Your task to perform on an android device: Add sony triple a to the cart on amazon.com Image 0: 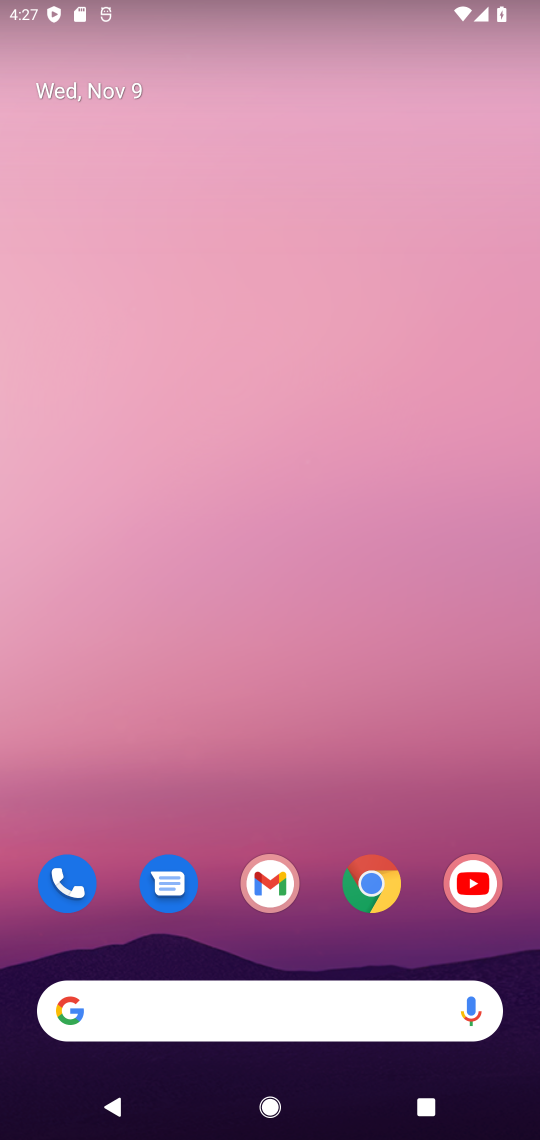
Step 0: click (377, 902)
Your task to perform on an android device: Add sony triple a to the cart on amazon.com Image 1: 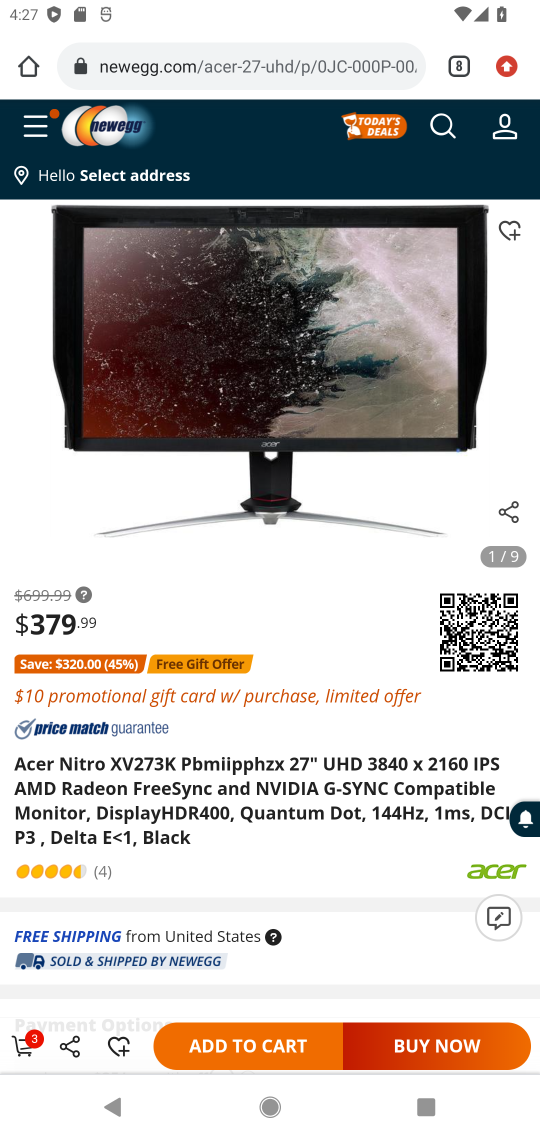
Step 1: click (458, 58)
Your task to perform on an android device: Add sony triple a to the cart on amazon.com Image 2: 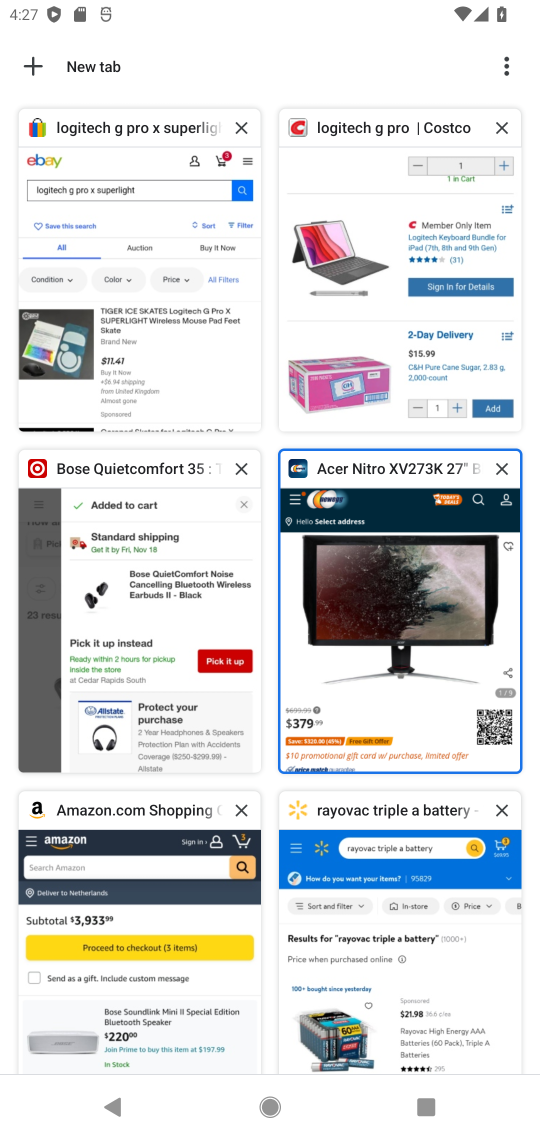
Step 2: click (135, 860)
Your task to perform on an android device: Add sony triple a to the cart on amazon.com Image 3: 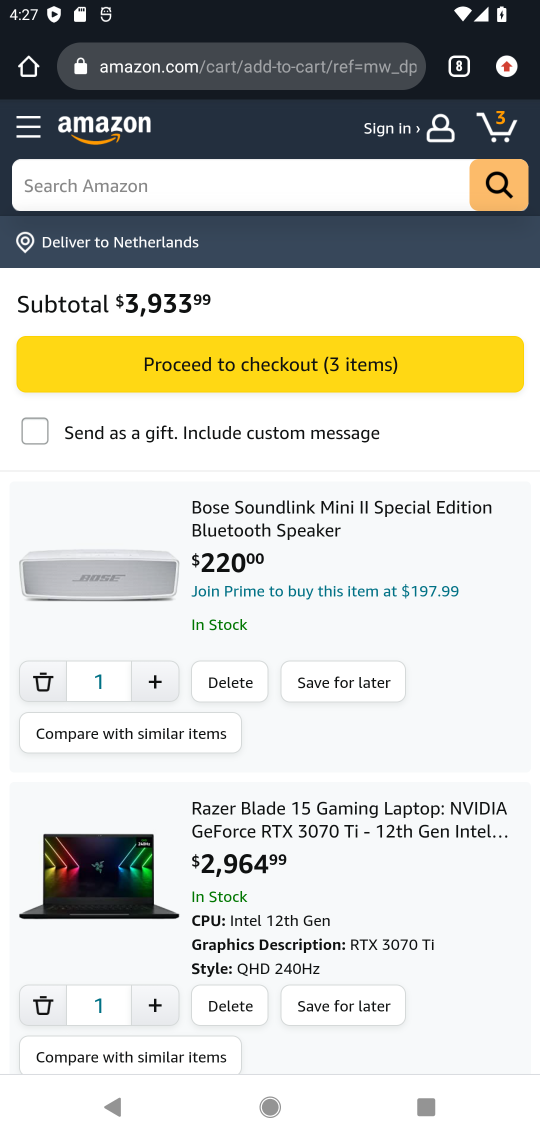
Step 3: click (163, 179)
Your task to perform on an android device: Add sony triple a to the cart on amazon.com Image 4: 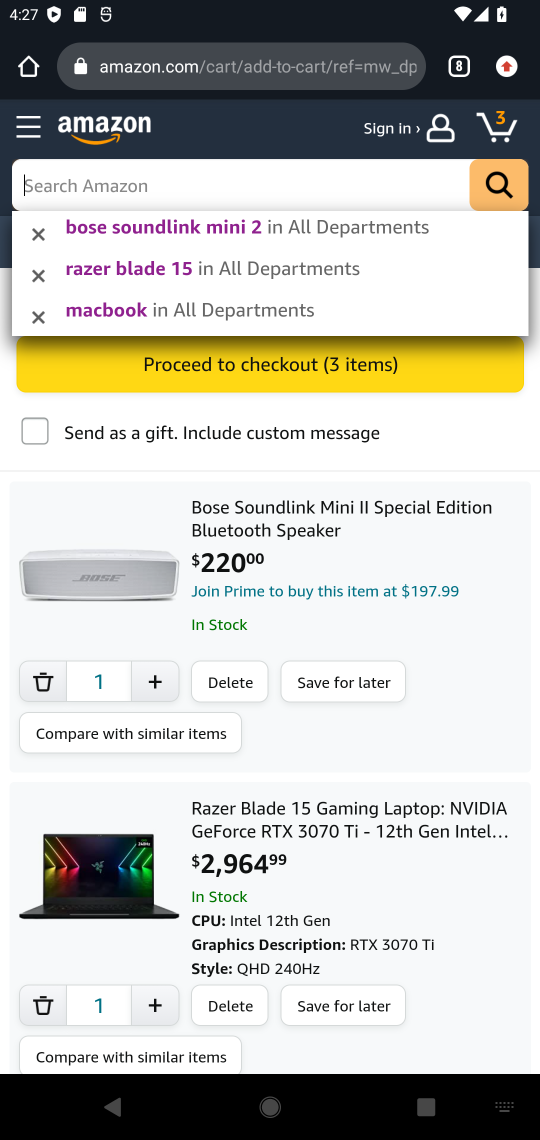
Step 4: type "sony triple a battery"
Your task to perform on an android device: Add sony triple a to the cart on amazon.com Image 5: 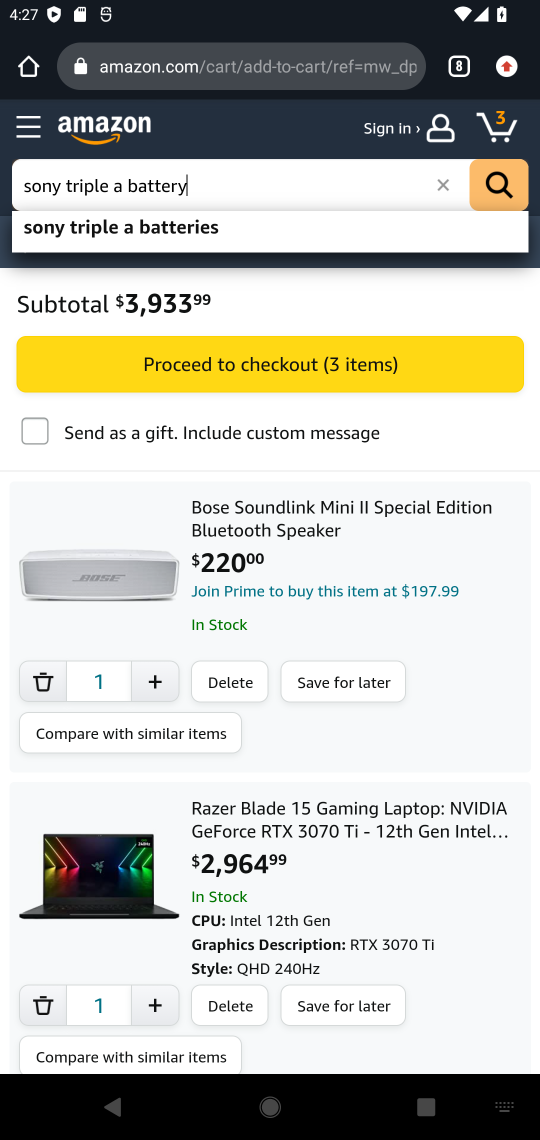
Step 5: click (195, 233)
Your task to perform on an android device: Add sony triple a to the cart on amazon.com Image 6: 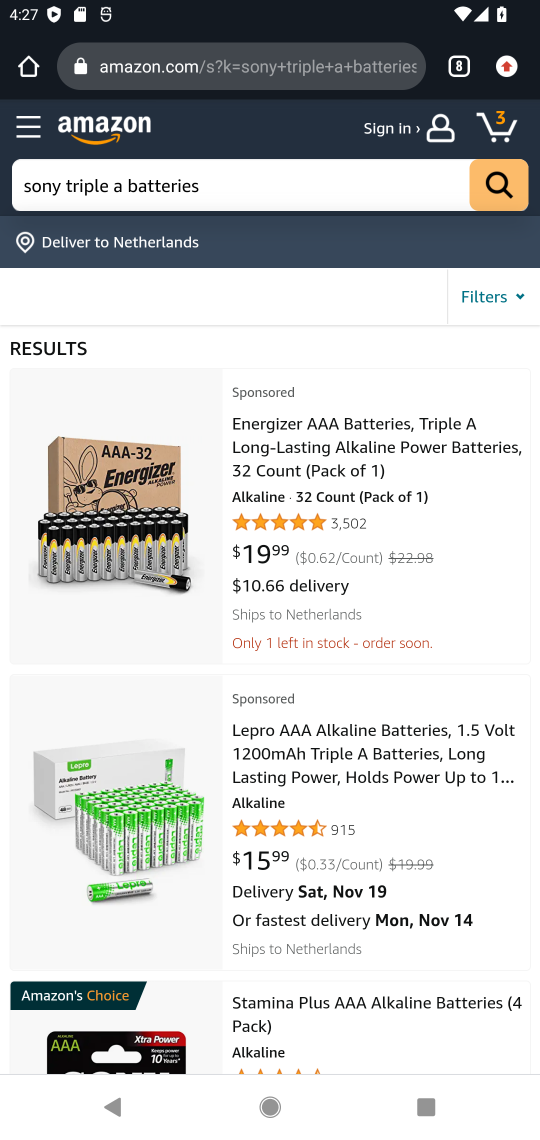
Step 6: drag from (346, 1074) to (332, 537)
Your task to perform on an android device: Add sony triple a to the cart on amazon.com Image 7: 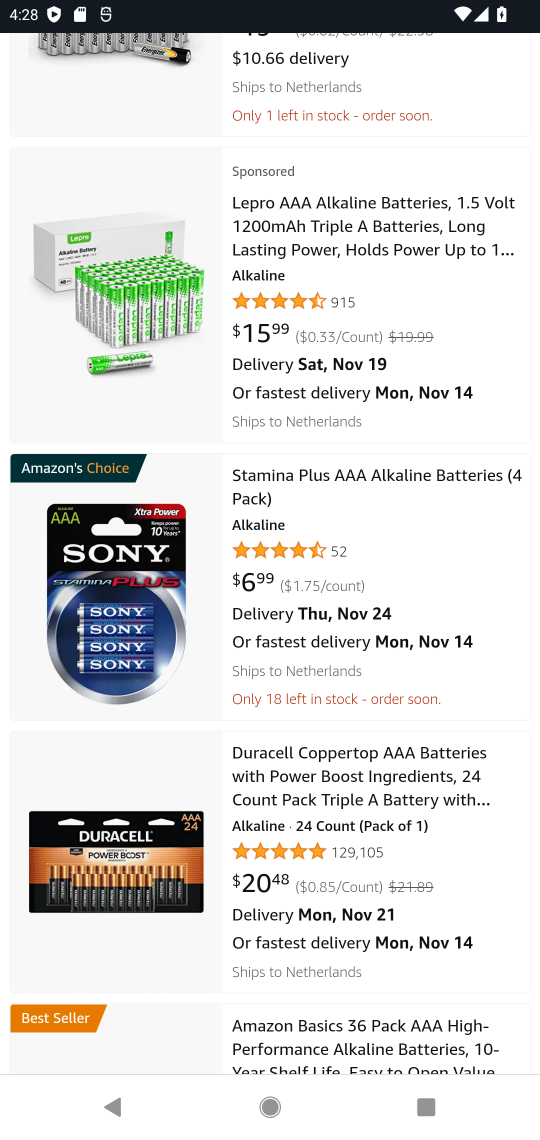
Step 7: click (409, 468)
Your task to perform on an android device: Add sony triple a to the cart on amazon.com Image 8: 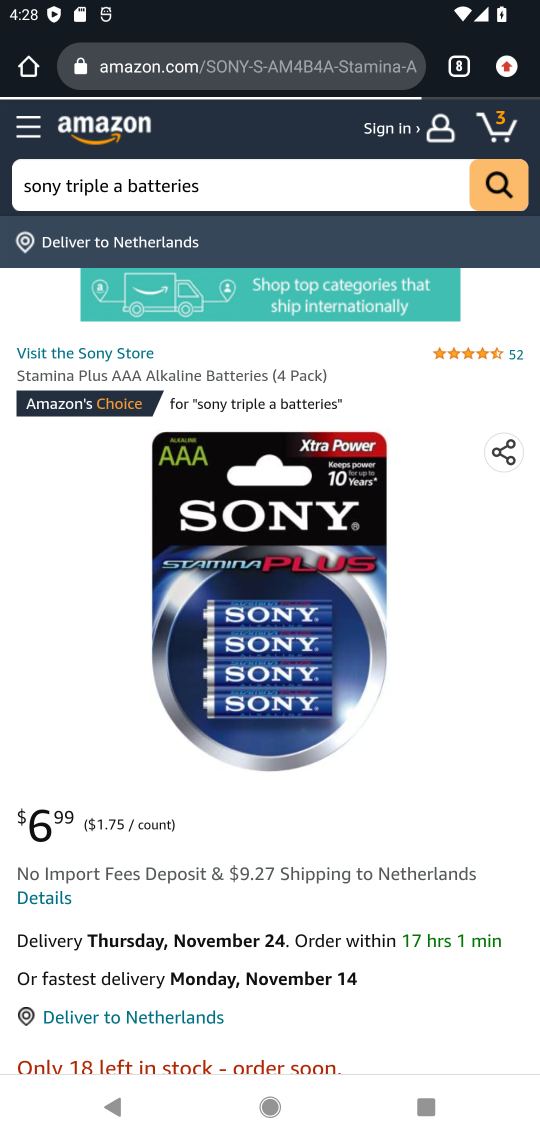
Step 8: drag from (347, 937) to (426, 303)
Your task to perform on an android device: Add sony triple a to the cart on amazon.com Image 9: 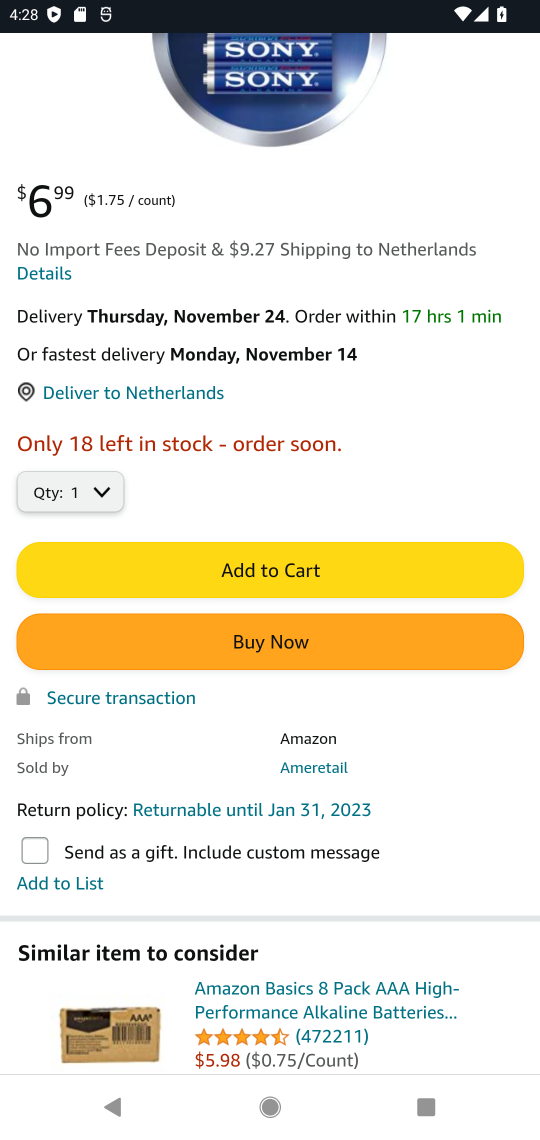
Step 9: click (309, 562)
Your task to perform on an android device: Add sony triple a to the cart on amazon.com Image 10: 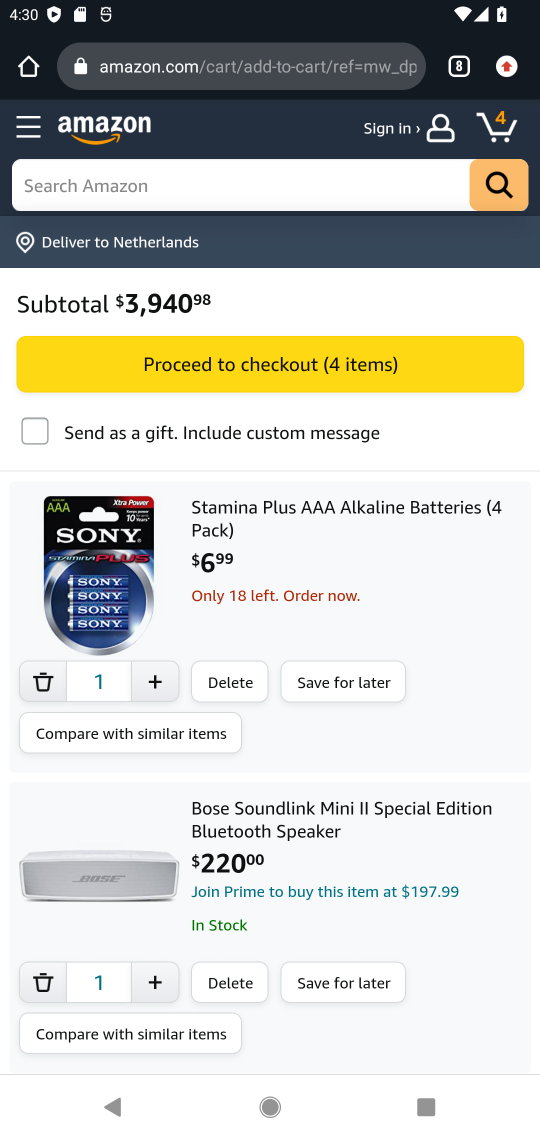
Step 10: task complete